Your task to perform on an android device: open sync settings in chrome Image 0: 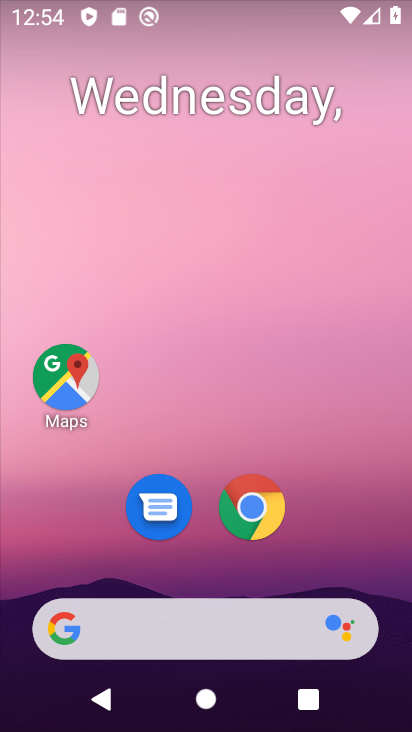
Step 0: drag from (346, 552) to (350, 118)
Your task to perform on an android device: open sync settings in chrome Image 1: 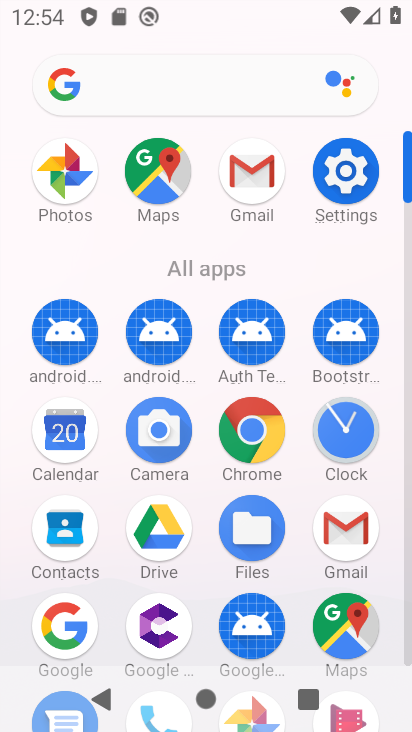
Step 1: click (253, 419)
Your task to perform on an android device: open sync settings in chrome Image 2: 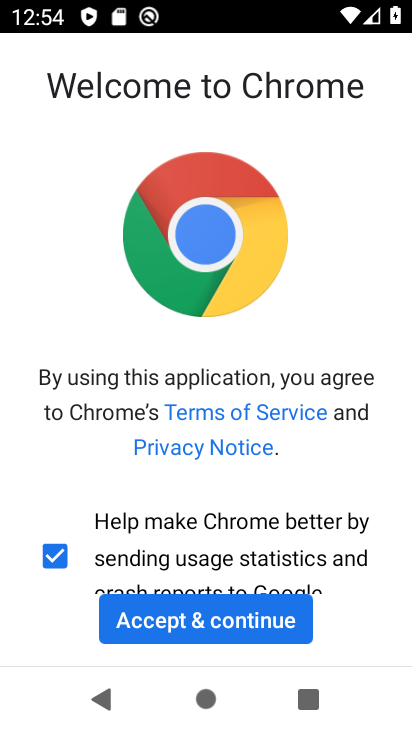
Step 2: click (189, 631)
Your task to perform on an android device: open sync settings in chrome Image 3: 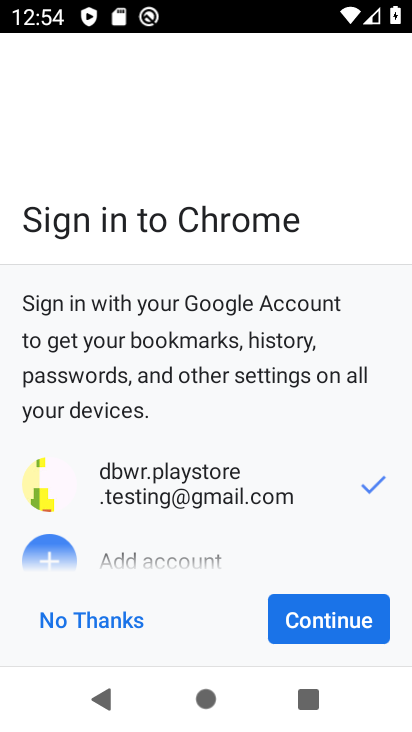
Step 3: click (108, 628)
Your task to perform on an android device: open sync settings in chrome Image 4: 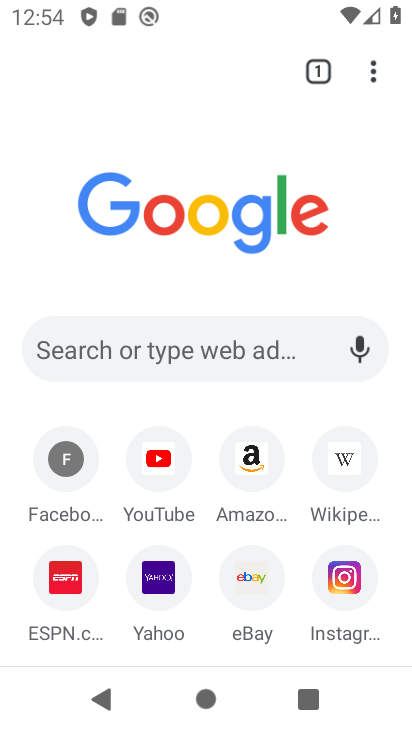
Step 4: drag from (383, 72) to (83, 495)
Your task to perform on an android device: open sync settings in chrome Image 5: 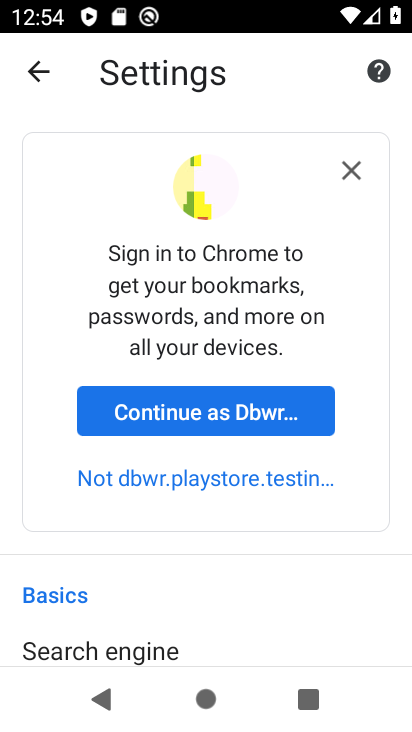
Step 5: click (149, 427)
Your task to perform on an android device: open sync settings in chrome Image 6: 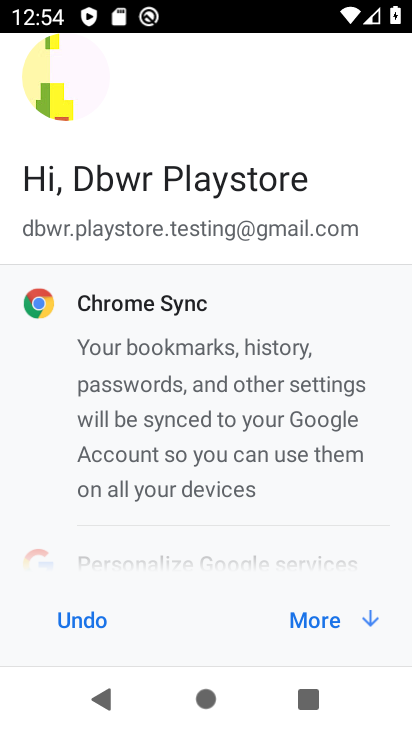
Step 6: click (336, 610)
Your task to perform on an android device: open sync settings in chrome Image 7: 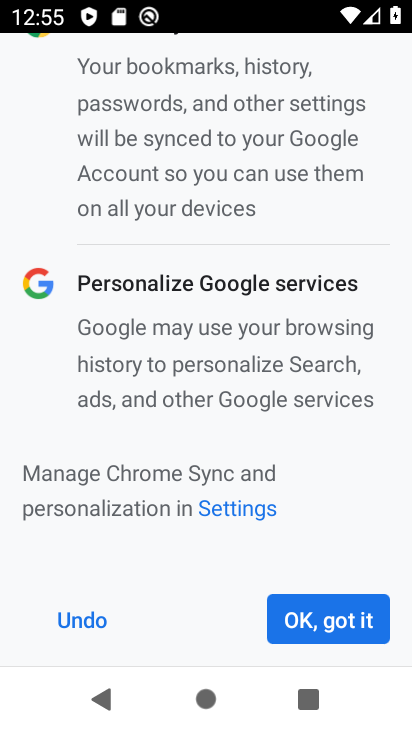
Step 7: click (335, 601)
Your task to perform on an android device: open sync settings in chrome Image 8: 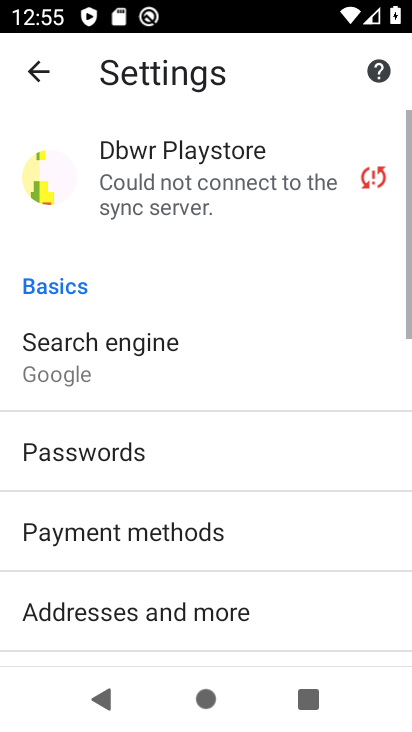
Step 8: drag from (285, 551) to (232, 237)
Your task to perform on an android device: open sync settings in chrome Image 9: 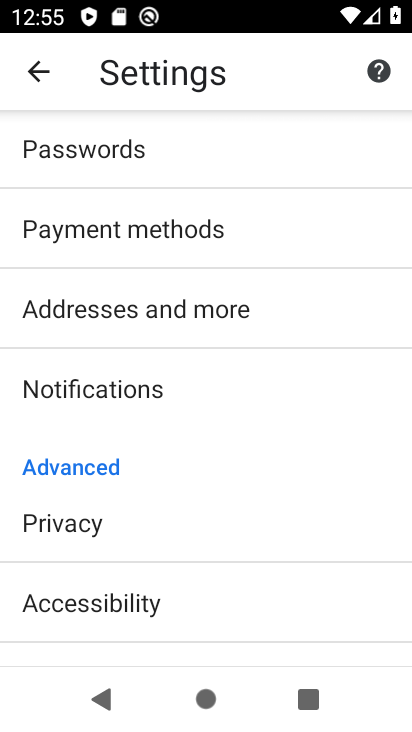
Step 9: drag from (230, 511) to (255, 203)
Your task to perform on an android device: open sync settings in chrome Image 10: 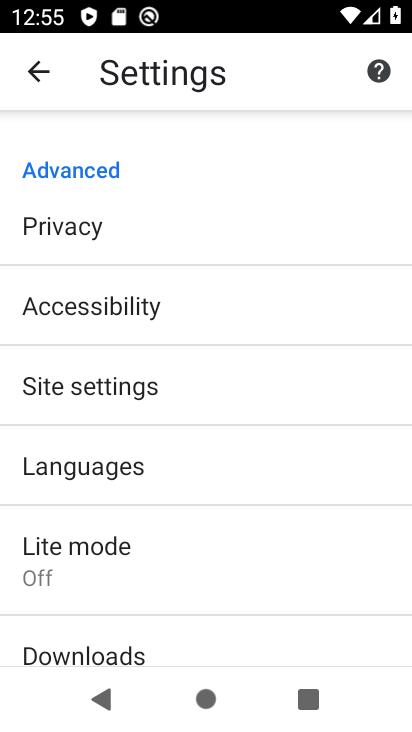
Step 10: click (110, 370)
Your task to perform on an android device: open sync settings in chrome Image 11: 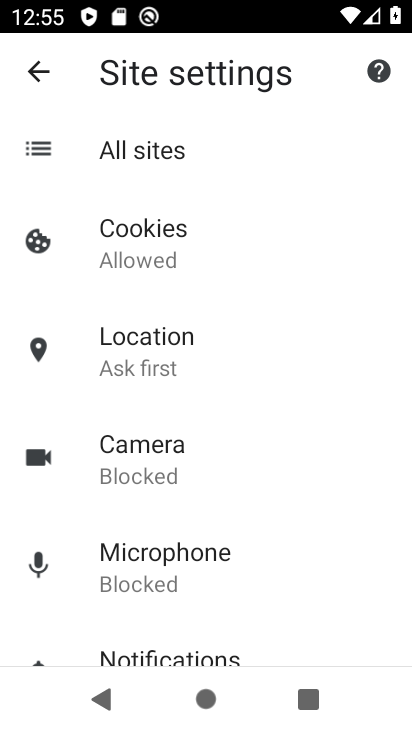
Step 11: drag from (181, 553) to (195, 247)
Your task to perform on an android device: open sync settings in chrome Image 12: 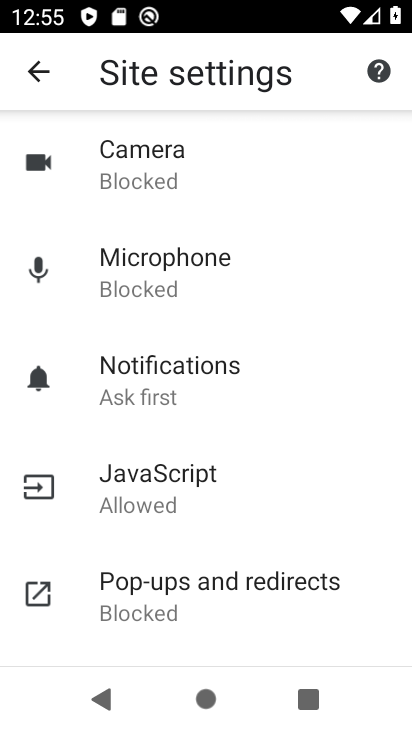
Step 12: drag from (242, 570) to (271, 263)
Your task to perform on an android device: open sync settings in chrome Image 13: 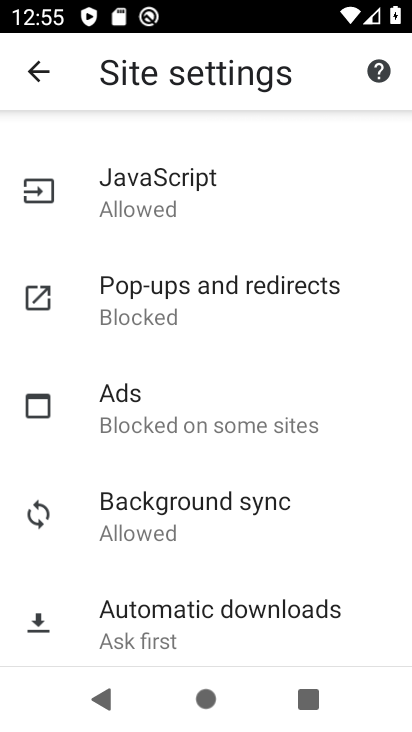
Step 13: click (236, 502)
Your task to perform on an android device: open sync settings in chrome Image 14: 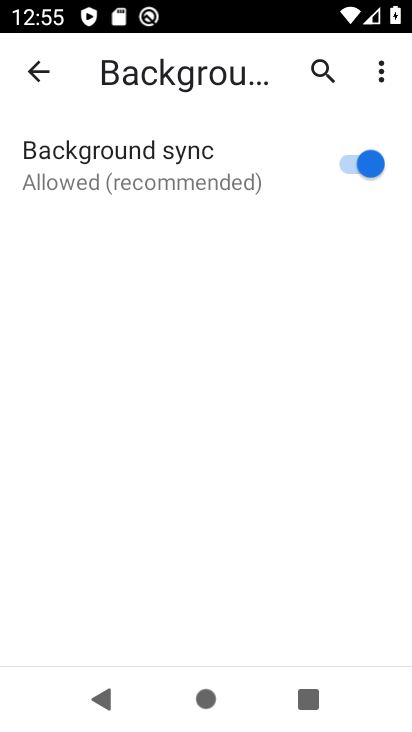
Step 14: task complete